Your task to perform on an android device: Search for vegetarian restaurants on Maps Image 0: 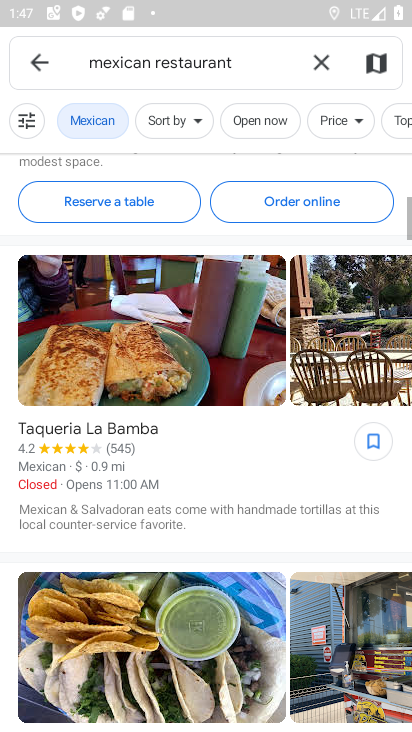
Step 0: press home button
Your task to perform on an android device: Search for vegetarian restaurants on Maps Image 1: 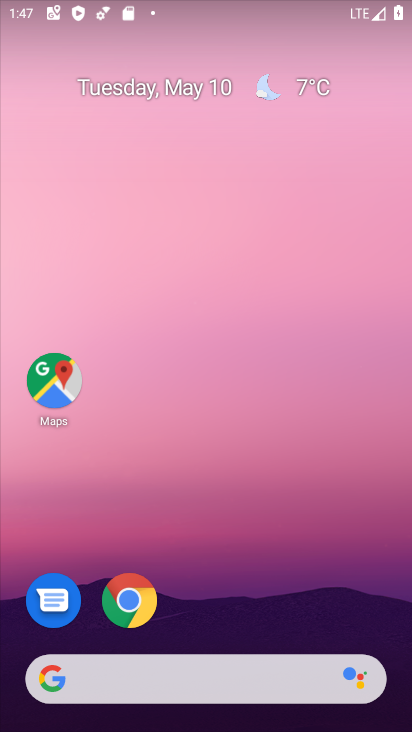
Step 1: click (50, 389)
Your task to perform on an android device: Search for vegetarian restaurants on Maps Image 2: 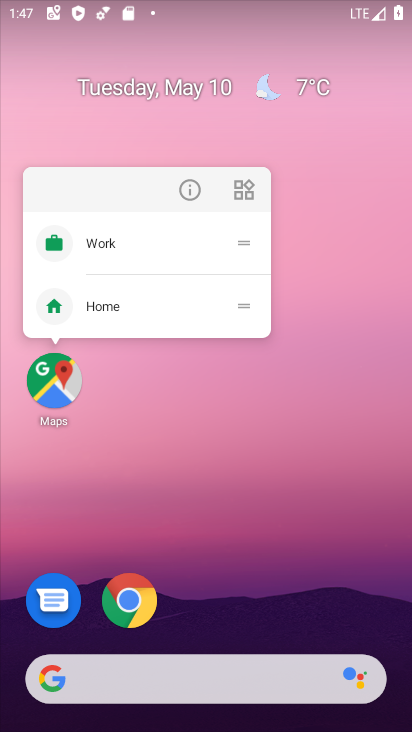
Step 2: click (54, 395)
Your task to perform on an android device: Search for vegetarian restaurants on Maps Image 3: 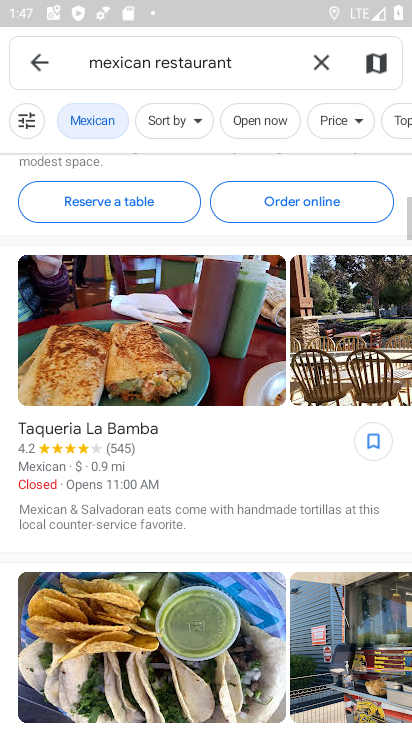
Step 3: click (319, 63)
Your task to perform on an android device: Search for vegetarian restaurants on Maps Image 4: 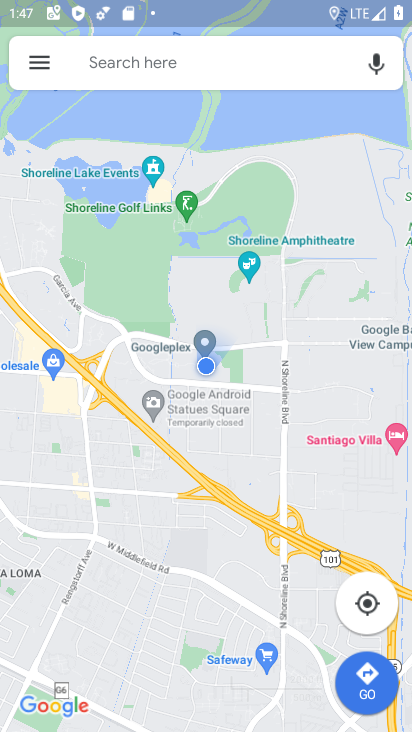
Step 4: click (212, 68)
Your task to perform on an android device: Search for vegetarian restaurants on Maps Image 5: 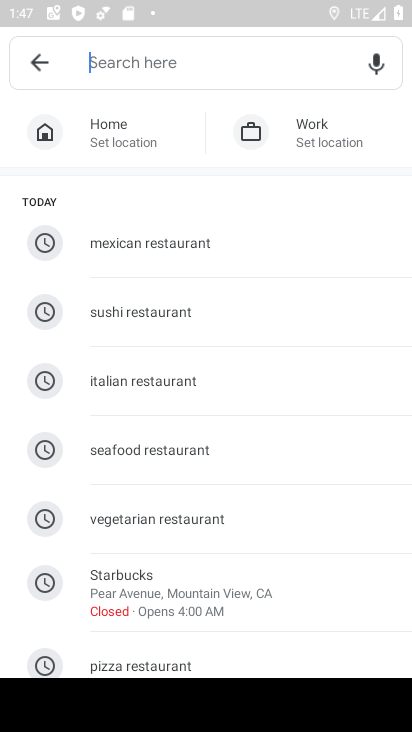
Step 5: click (171, 515)
Your task to perform on an android device: Search for vegetarian restaurants on Maps Image 6: 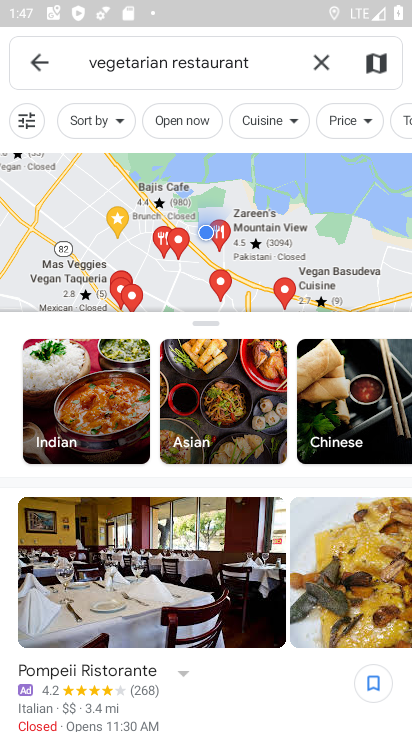
Step 6: task complete